Your task to perform on an android device: turn off airplane mode Image 0: 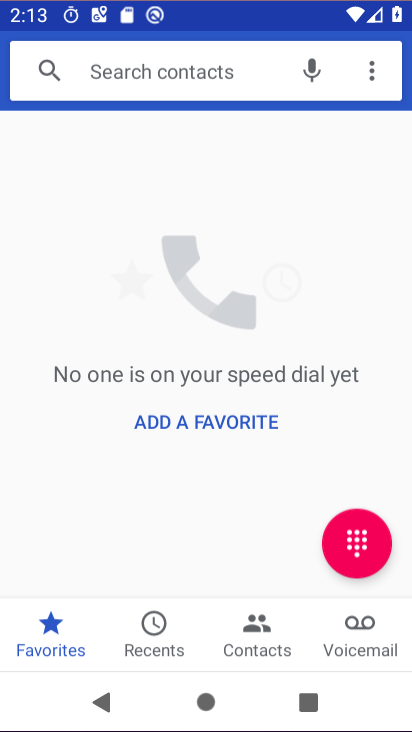
Step 0: drag from (218, 561) to (254, 34)
Your task to perform on an android device: turn off airplane mode Image 1: 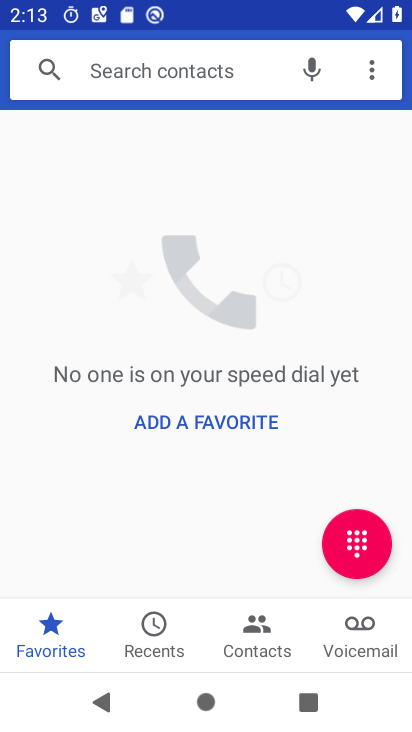
Step 1: press home button
Your task to perform on an android device: turn off airplane mode Image 2: 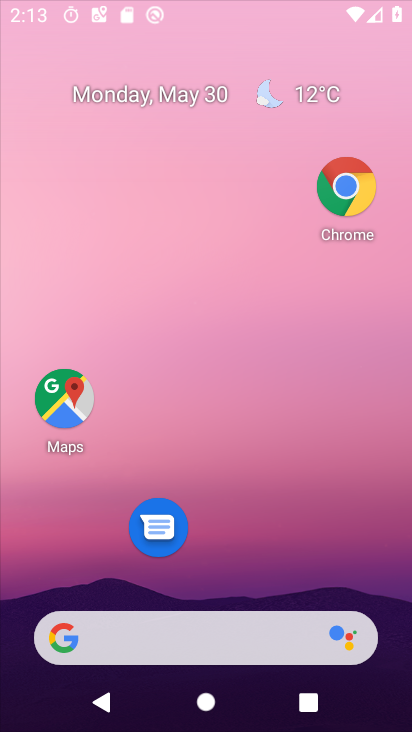
Step 2: drag from (213, 574) to (259, 167)
Your task to perform on an android device: turn off airplane mode Image 3: 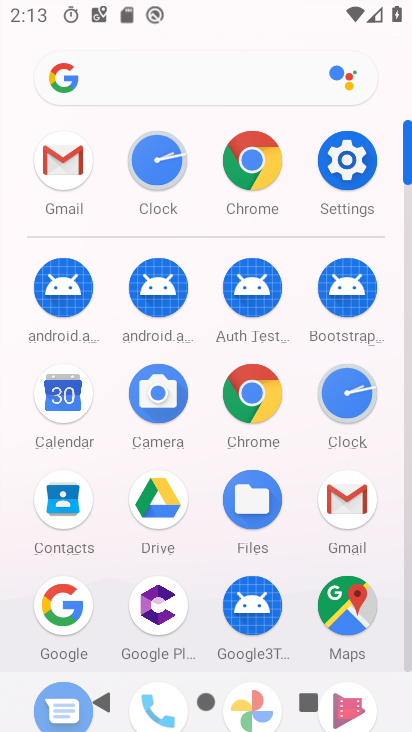
Step 3: click (351, 163)
Your task to perform on an android device: turn off airplane mode Image 4: 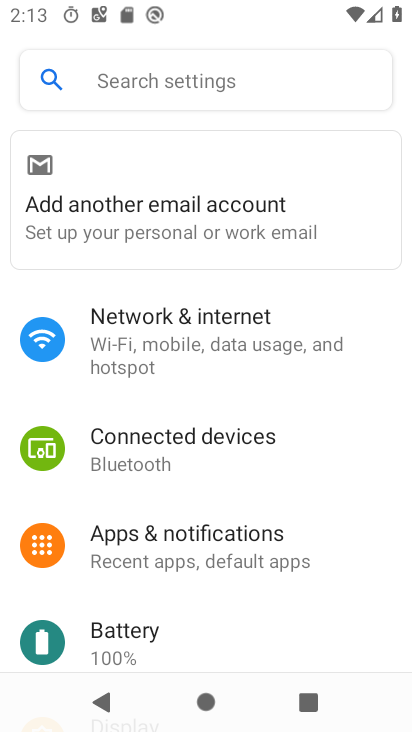
Step 4: click (193, 342)
Your task to perform on an android device: turn off airplane mode Image 5: 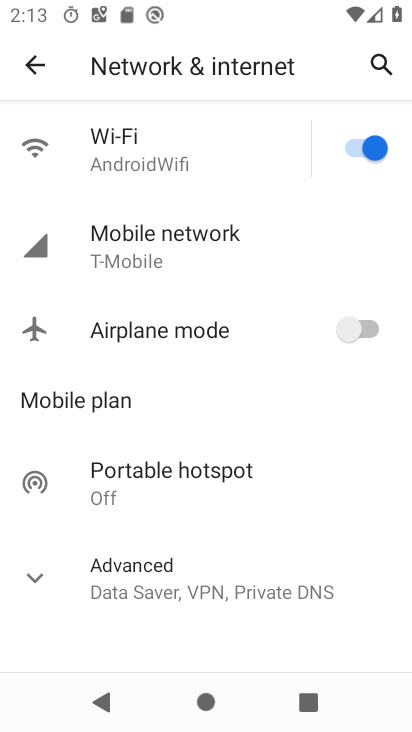
Step 5: task complete